Your task to perform on an android device: see creations saved in the google photos Image 0: 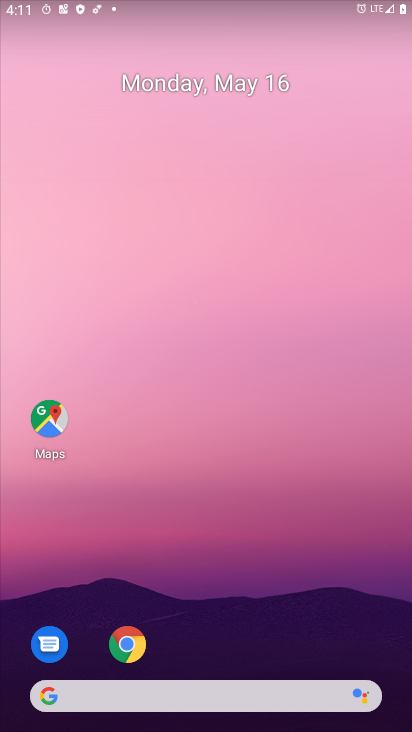
Step 0: drag from (245, 599) to (242, 127)
Your task to perform on an android device: see creations saved in the google photos Image 1: 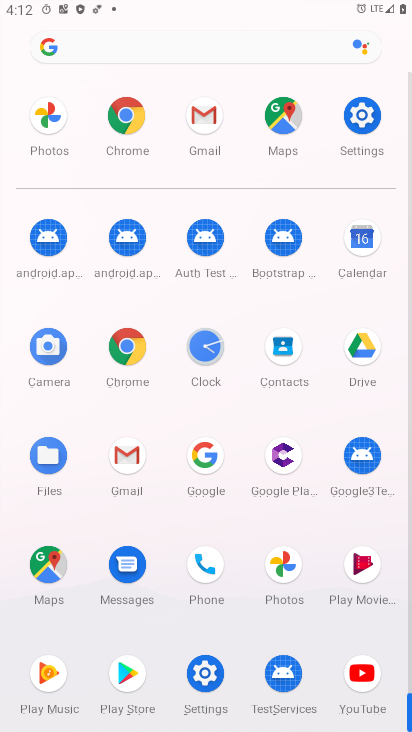
Step 1: click (284, 559)
Your task to perform on an android device: see creations saved in the google photos Image 2: 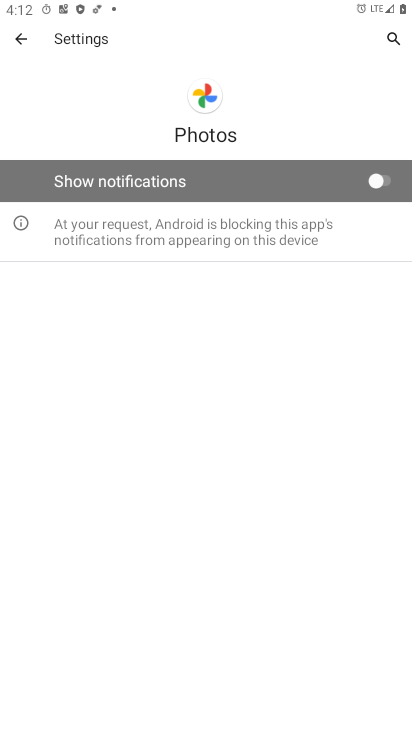
Step 2: click (17, 41)
Your task to perform on an android device: see creations saved in the google photos Image 3: 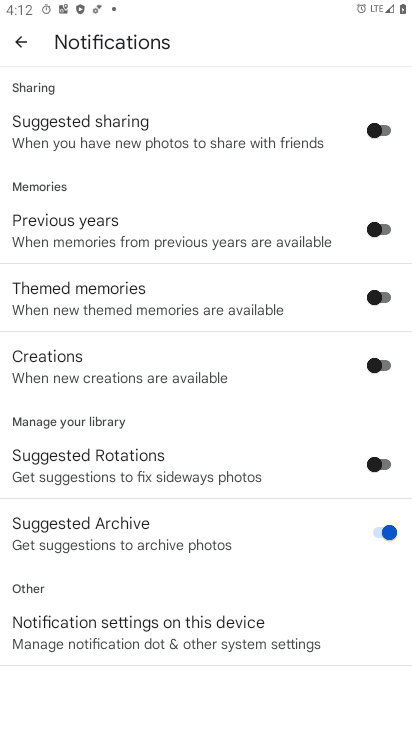
Step 3: click (21, 40)
Your task to perform on an android device: see creations saved in the google photos Image 4: 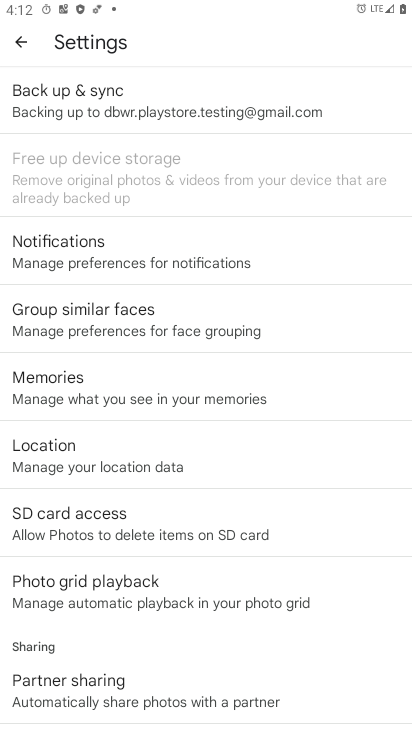
Step 4: click (28, 43)
Your task to perform on an android device: see creations saved in the google photos Image 5: 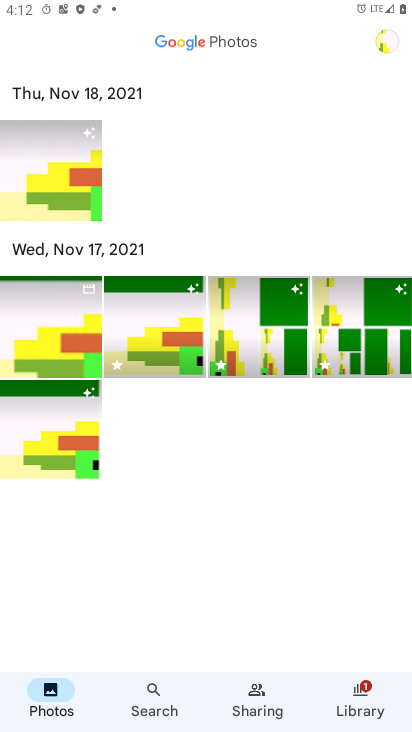
Step 5: task complete